Your task to perform on an android device: Open Wikipedia Image 0: 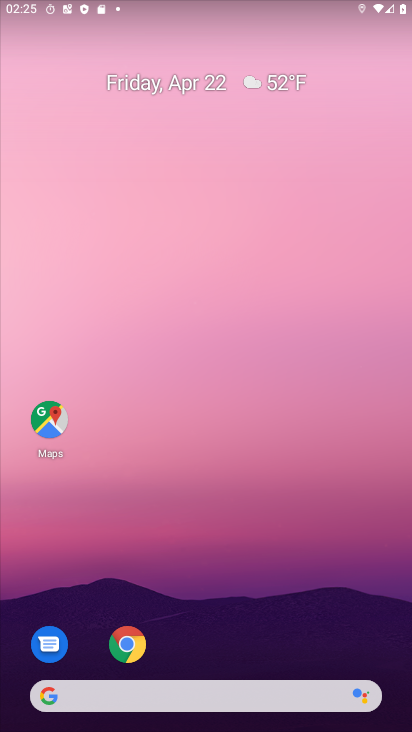
Step 0: click (194, 182)
Your task to perform on an android device: Open Wikipedia Image 1: 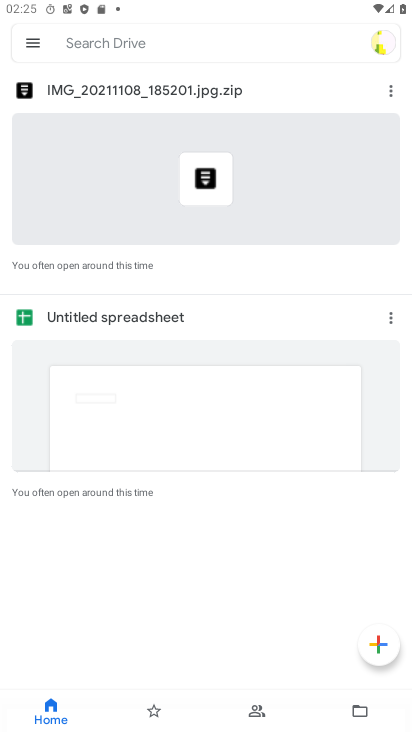
Step 1: press home button
Your task to perform on an android device: Open Wikipedia Image 2: 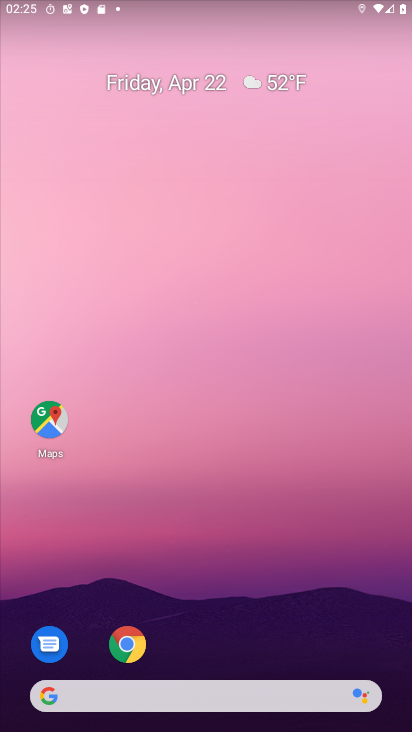
Step 2: click (121, 649)
Your task to perform on an android device: Open Wikipedia Image 3: 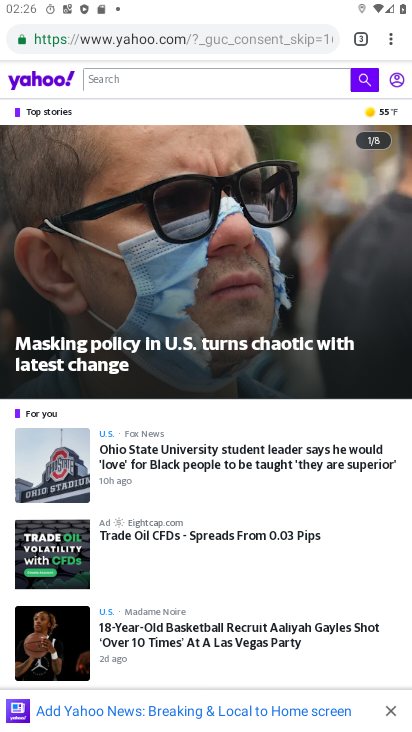
Step 3: click (358, 41)
Your task to perform on an android device: Open Wikipedia Image 4: 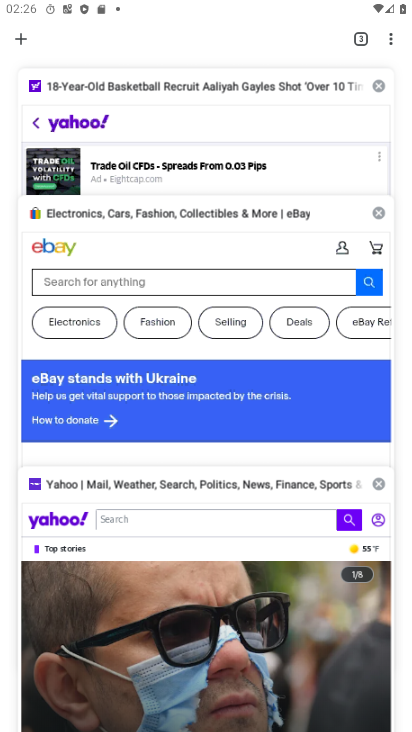
Step 4: click (21, 41)
Your task to perform on an android device: Open Wikipedia Image 5: 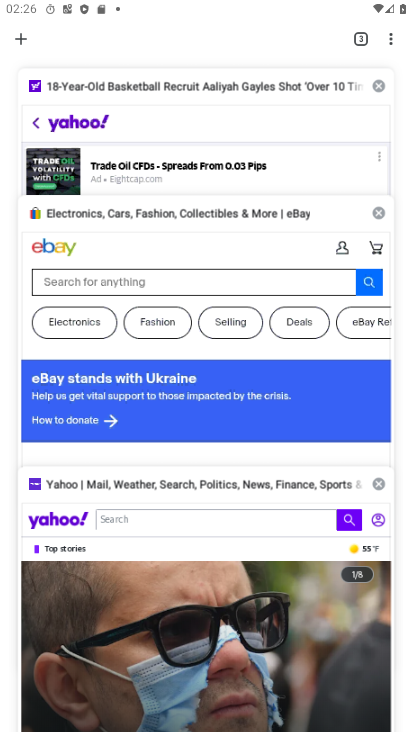
Step 5: click (19, 43)
Your task to perform on an android device: Open Wikipedia Image 6: 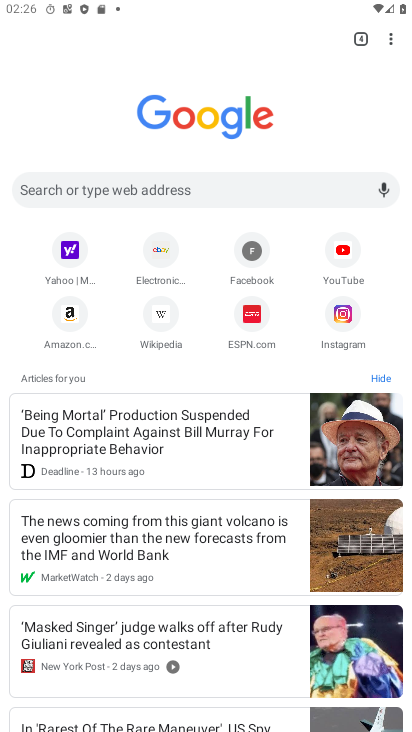
Step 6: click (163, 341)
Your task to perform on an android device: Open Wikipedia Image 7: 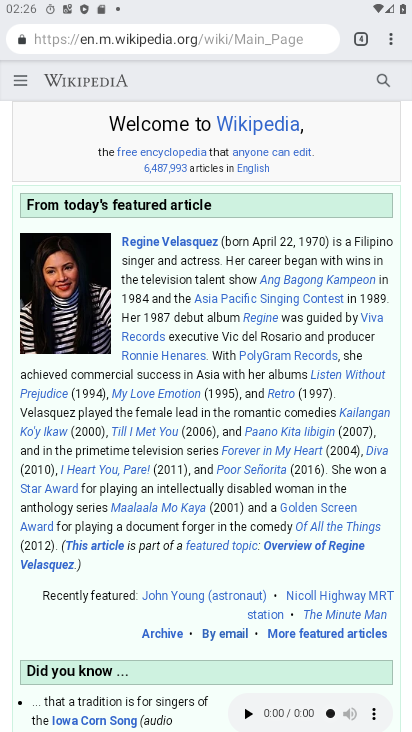
Step 7: task complete